Your task to perform on an android device: install app "HBO Max: Stream TV & Movies" Image 0: 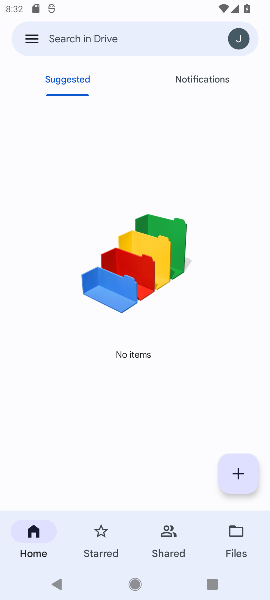
Step 0: task complete